Your task to perform on an android device: search for starred emails in the gmail app Image 0: 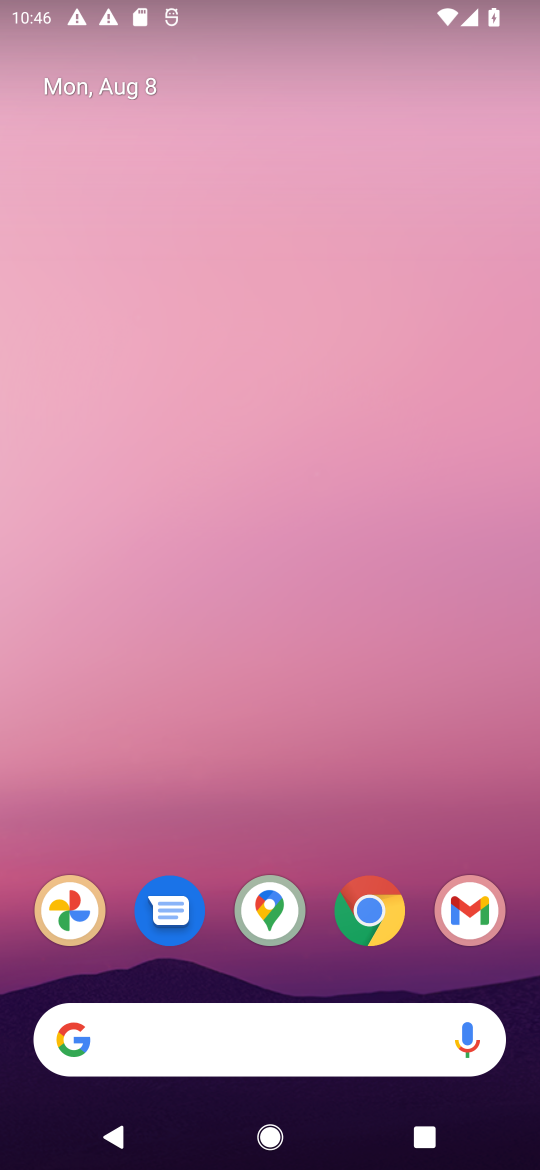
Step 0: drag from (155, 982) to (115, 14)
Your task to perform on an android device: search for starred emails in the gmail app Image 1: 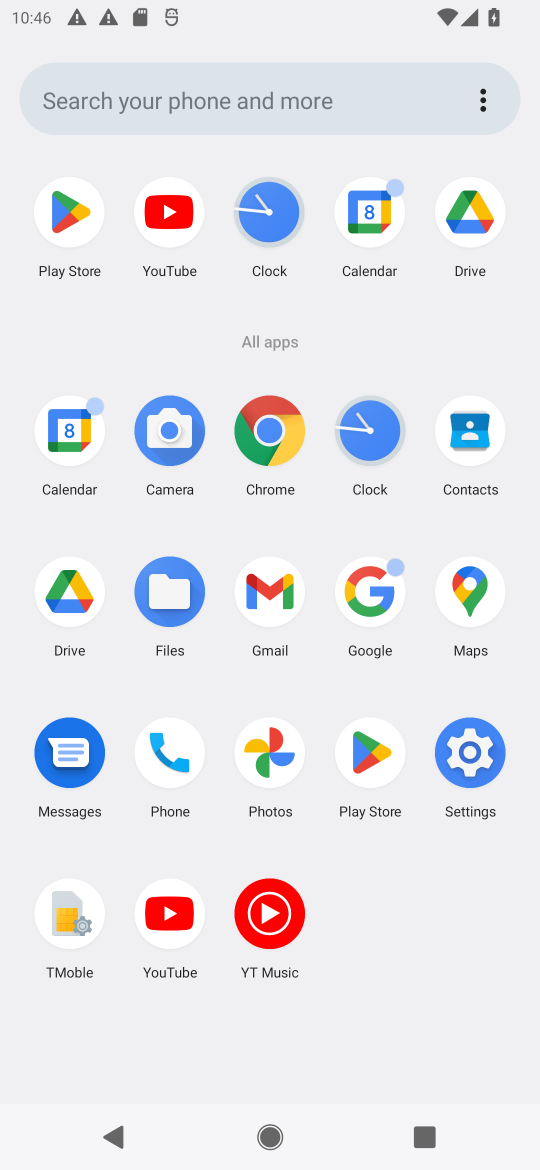
Step 1: click (244, 564)
Your task to perform on an android device: search for starred emails in the gmail app Image 2: 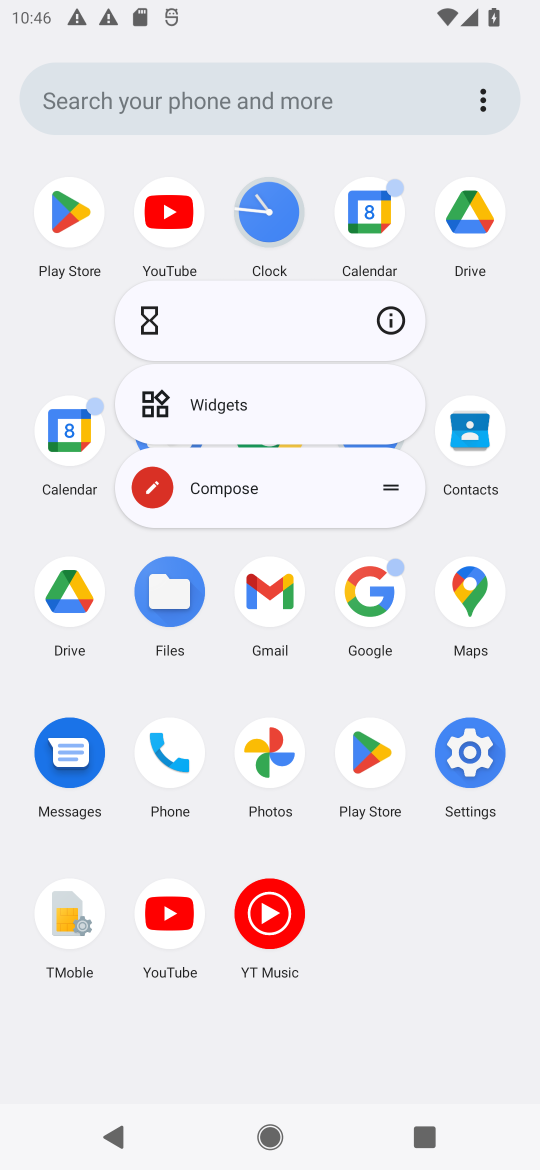
Step 2: click (240, 560)
Your task to perform on an android device: search for starred emails in the gmail app Image 3: 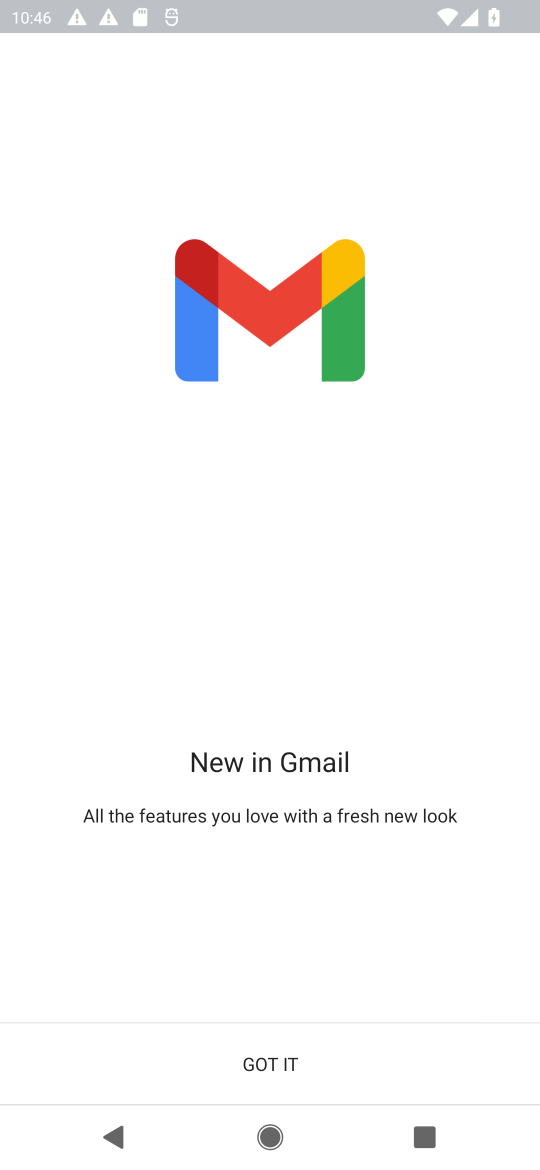
Step 3: click (310, 1044)
Your task to perform on an android device: search for starred emails in the gmail app Image 4: 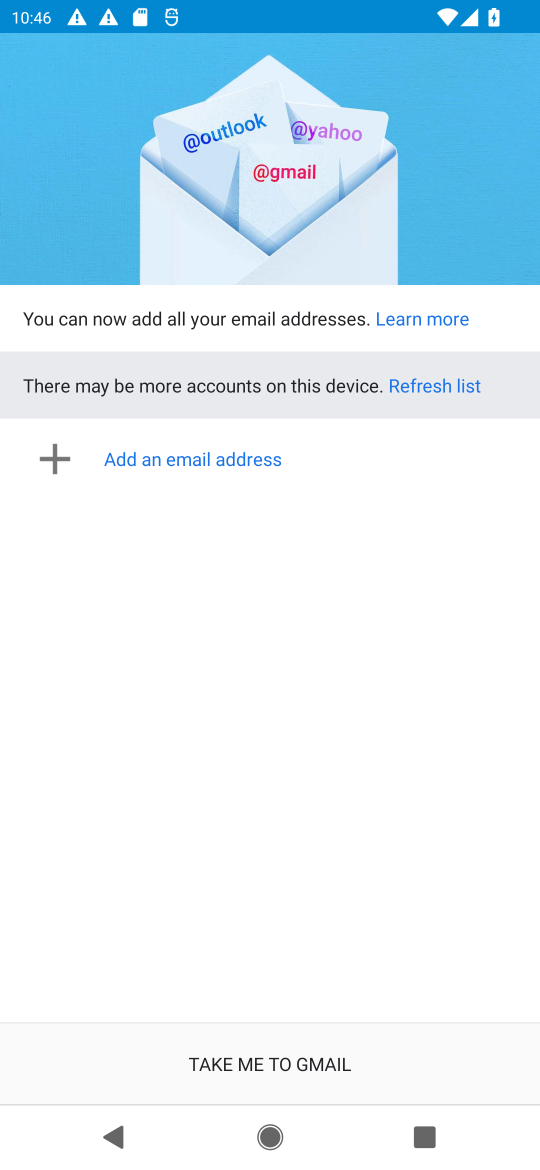
Step 4: click (414, 378)
Your task to perform on an android device: search for starred emails in the gmail app Image 5: 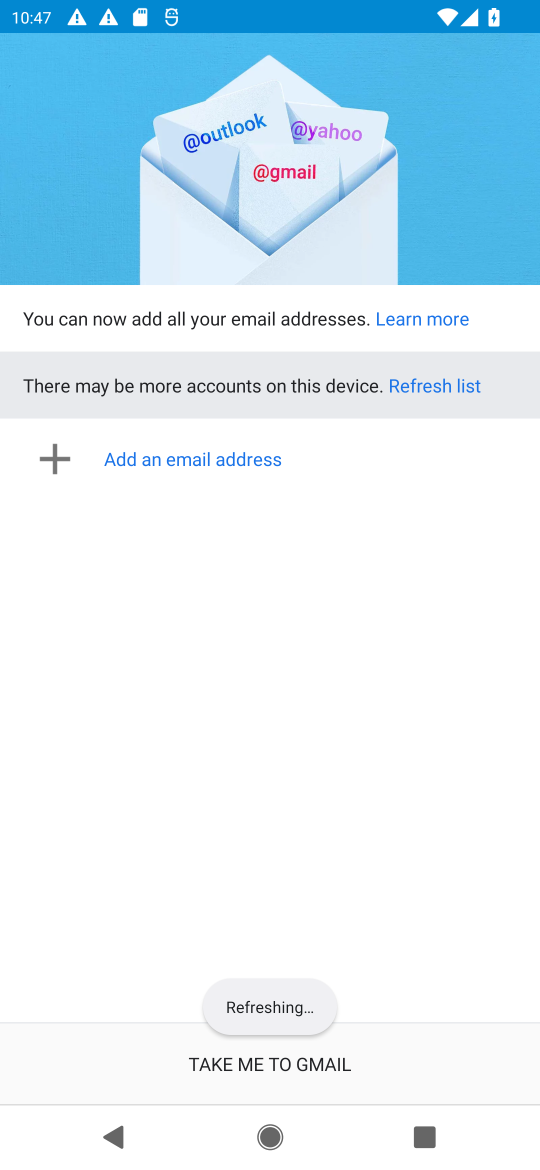
Step 5: click (428, 392)
Your task to perform on an android device: search for starred emails in the gmail app Image 6: 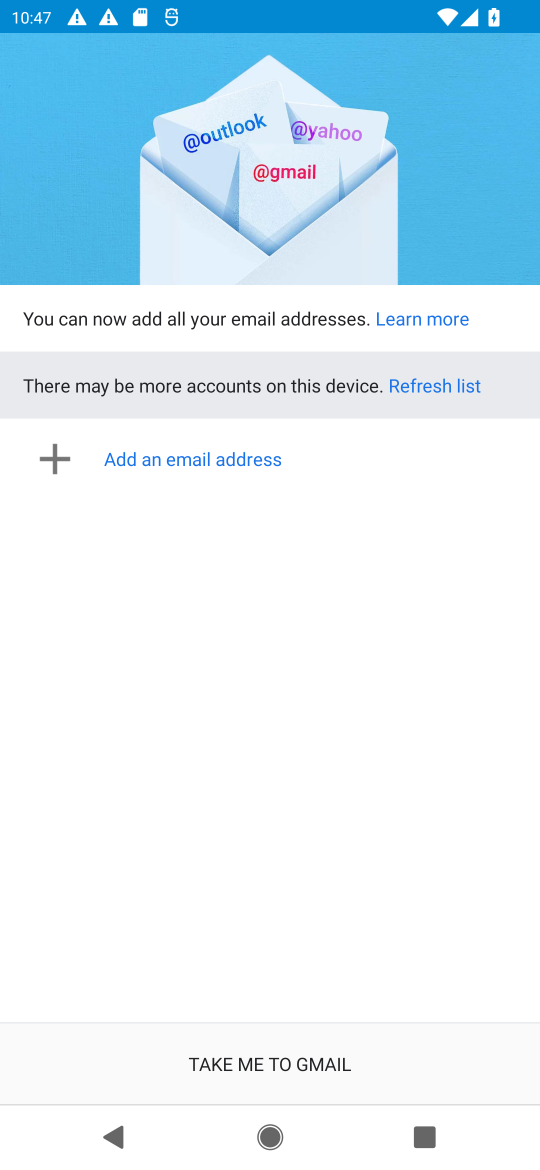
Step 6: task complete